Your task to perform on an android device: Open CNN.com Image 0: 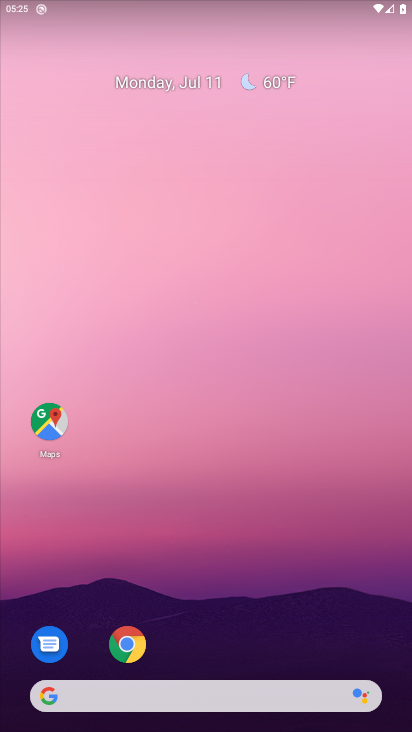
Step 0: drag from (189, 680) to (205, 309)
Your task to perform on an android device: Open CNN.com Image 1: 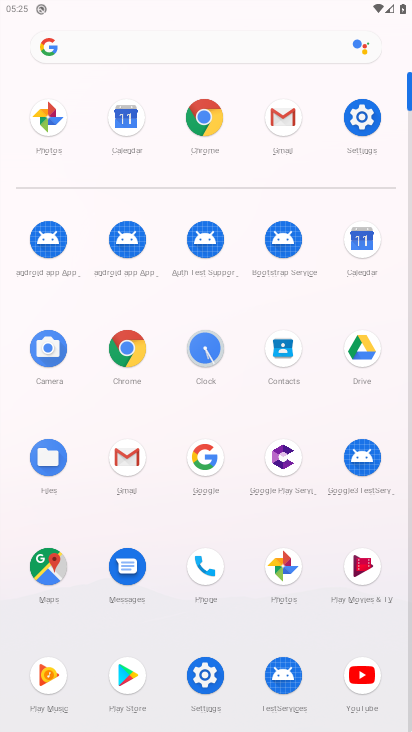
Step 1: click (200, 460)
Your task to perform on an android device: Open CNN.com Image 2: 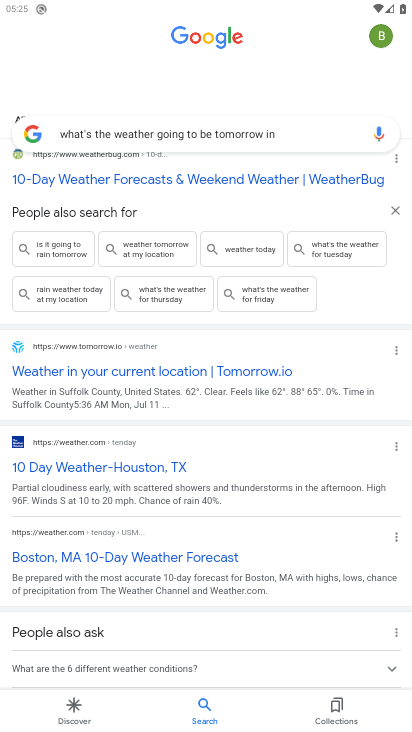
Step 2: click (275, 133)
Your task to perform on an android device: Open CNN.com Image 3: 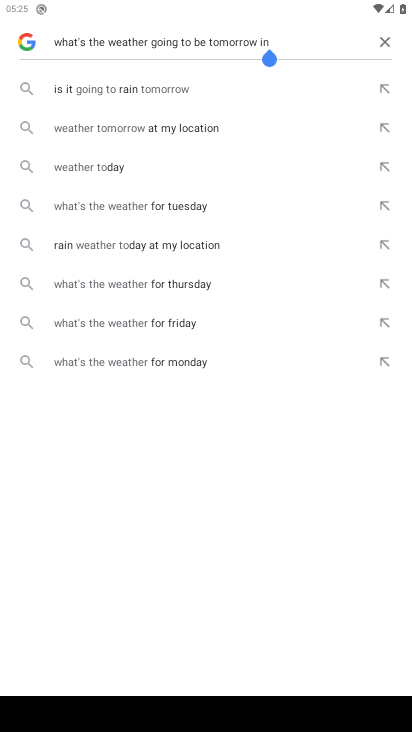
Step 3: click (375, 41)
Your task to perform on an android device: Open CNN.com Image 4: 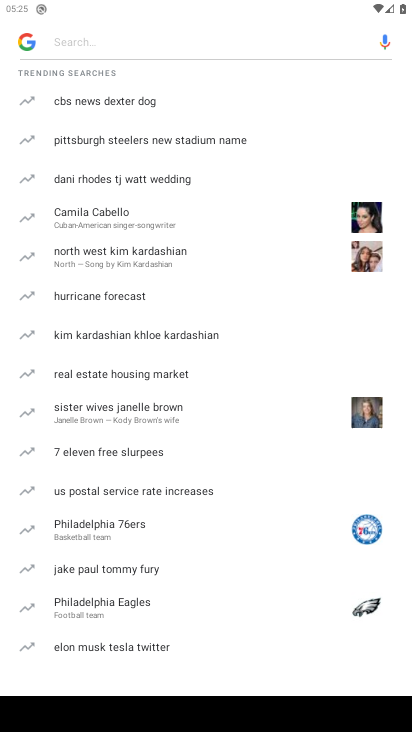
Step 4: click (94, 43)
Your task to perform on an android device: Open CNN.com Image 5: 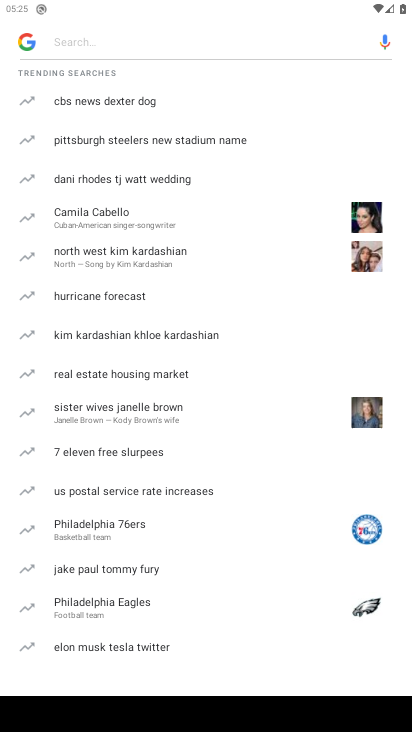
Step 5: type "CNN.com"
Your task to perform on an android device: Open CNN.com Image 6: 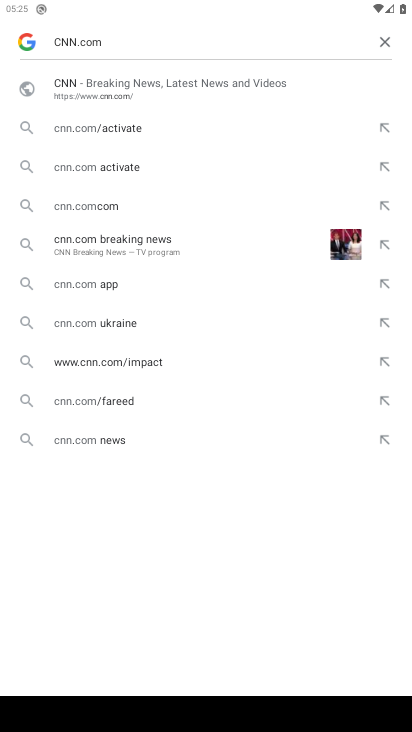
Step 6: click (132, 86)
Your task to perform on an android device: Open CNN.com Image 7: 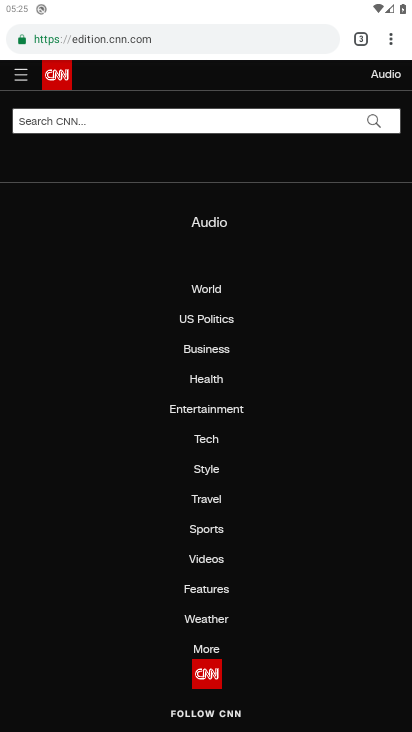
Step 7: task complete